Your task to perform on an android device: turn off javascript in the chrome app Image 0: 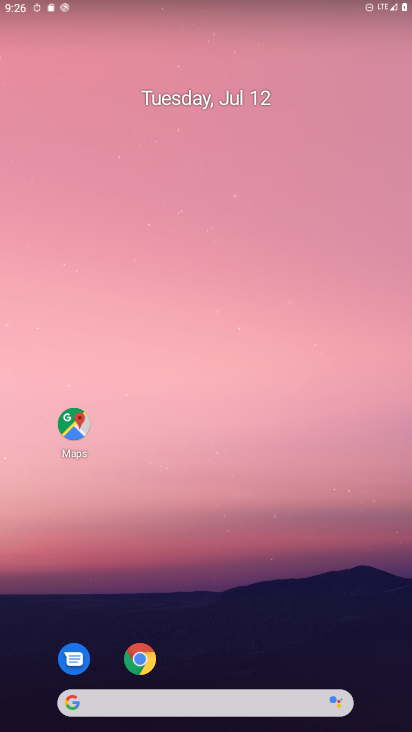
Step 0: drag from (363, 676) to (253, 0)
Your task to perform on an android device: turn off javascript in the chrome app Image 1: 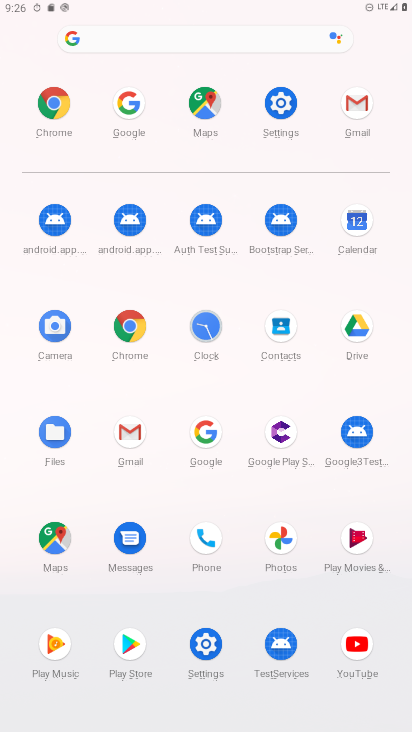
Step 1: click (123, 337)
Your task to perform on an android device: turn off javascript in the chrome app Image 2: 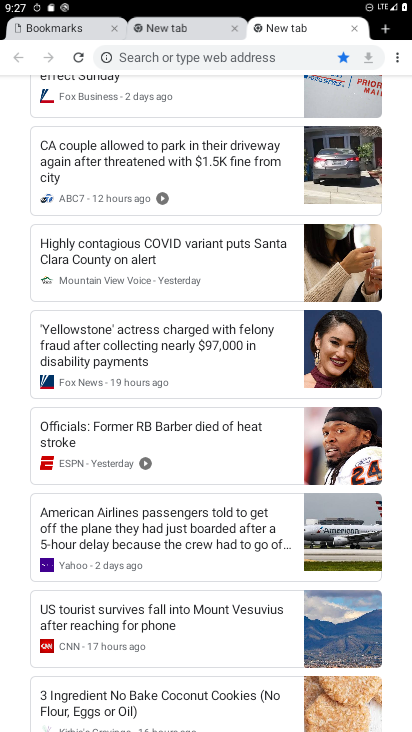
Step 2: click (394, 55)
Your task to perform on an android device: turn off javascript in the chrome app Image 3: 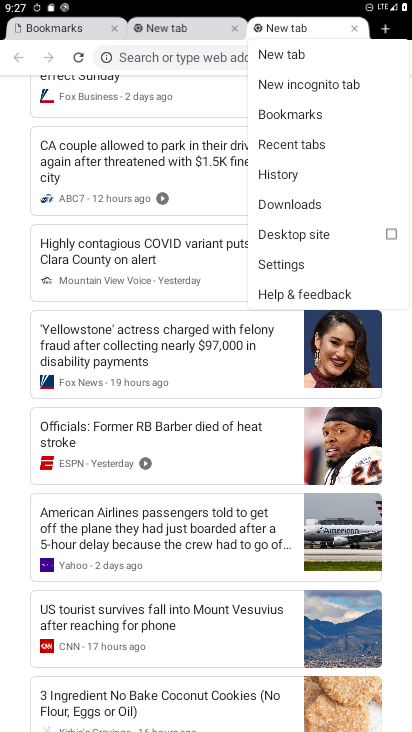
Step 3: click (309, 262)
Your task to perform on an android device: turn off javascript in the chrome app Image 4: 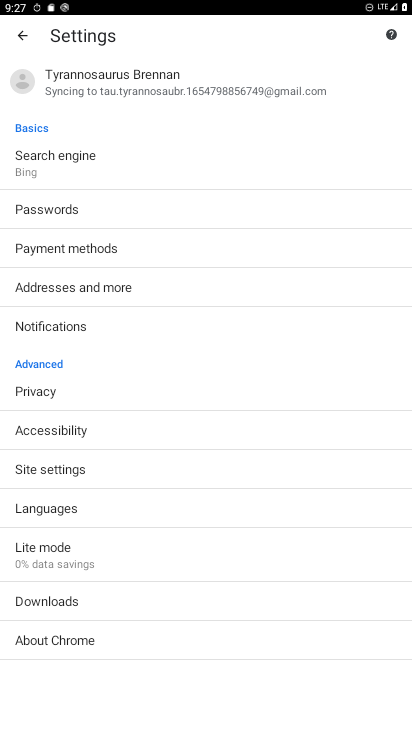
Step 4: click (61, 471)
Your task to perform on an android device: turn off javascript in the chrome app Image 5: 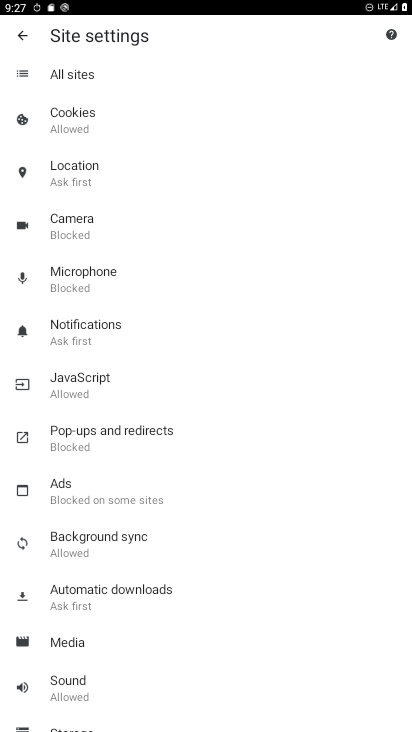
Step 5: click (117, 377)
Your task to perform on an android device: turn off javascript in the chrome app Image 6: 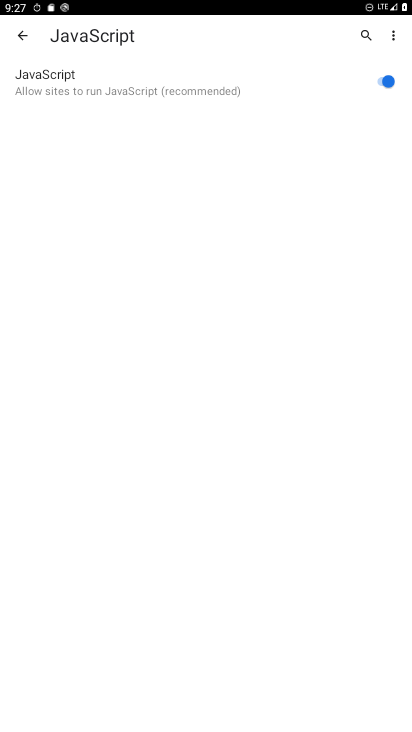
Step 6: click (364, 75)
Your task to perform on an android device: turn off javascript in the chrome app Image 7: 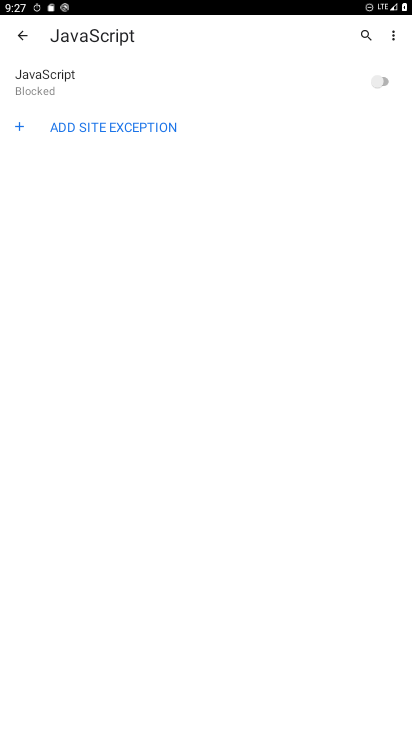
Step 7: task complete